Your task to perform on an android device: toggle improve location accuracy Image 0: 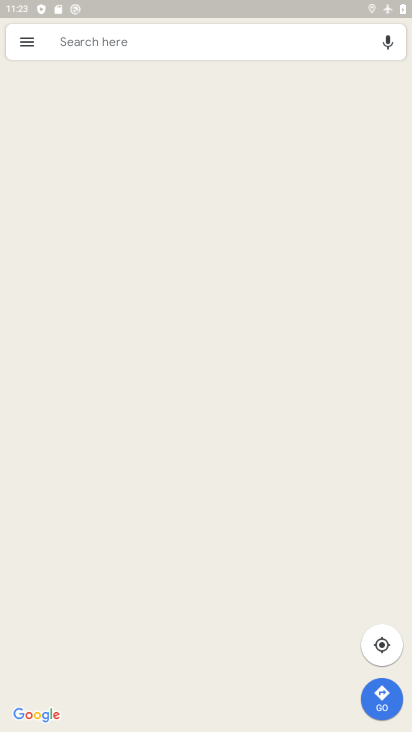
Step 0: press home button
Your task to perform on an android device: toggle improve location accuracy Image 1: 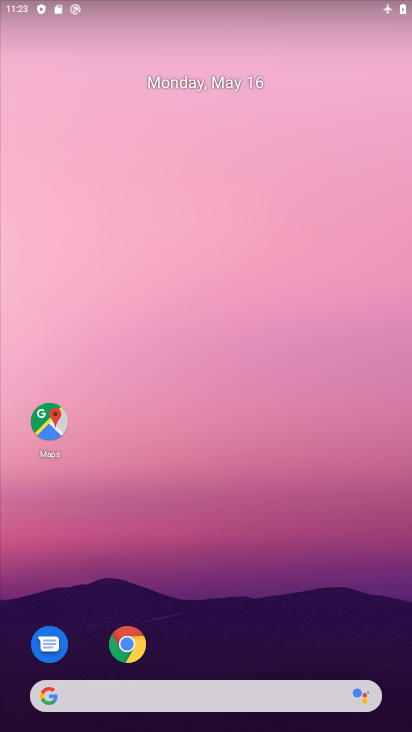
Step 1: drag from (253, 619) to (320, 228)
Your task to perform on an android device: toggle improve location accuracy Image 2: 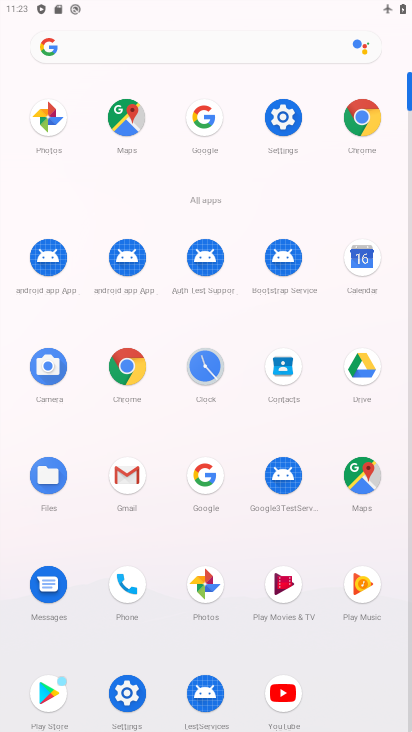
Step 2: click (282, 116)
Your task to perform on an android device: toggle improve location accuracy Image 3: 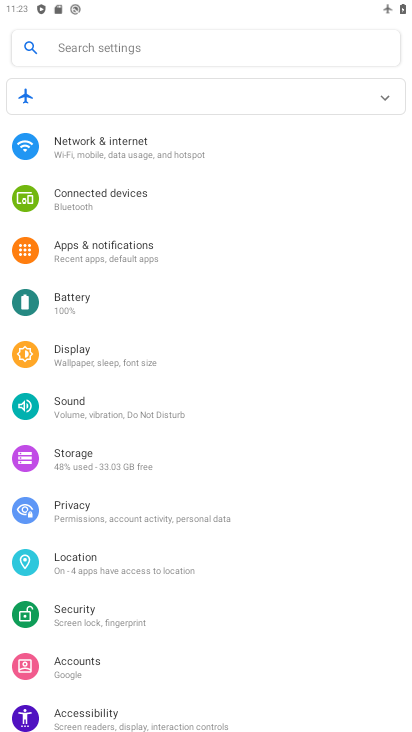
Step 3: click (94, 564)
Your task to perform on an android device: toggle improve location accuracy Image 4: 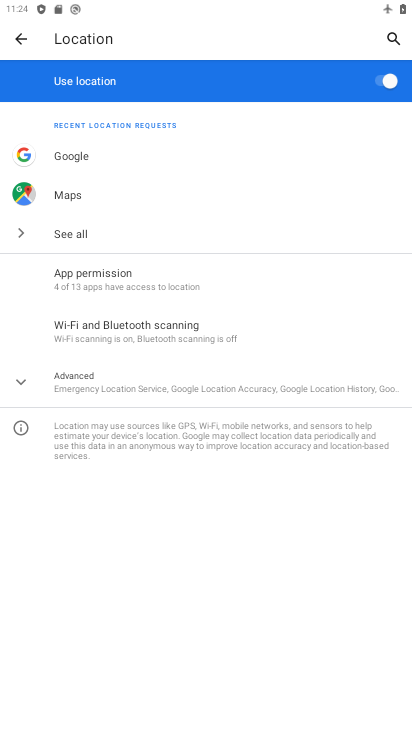
Step 4: click (142, 375)
Your task to perform on an android device: toggle improve location accuracy Image 5: 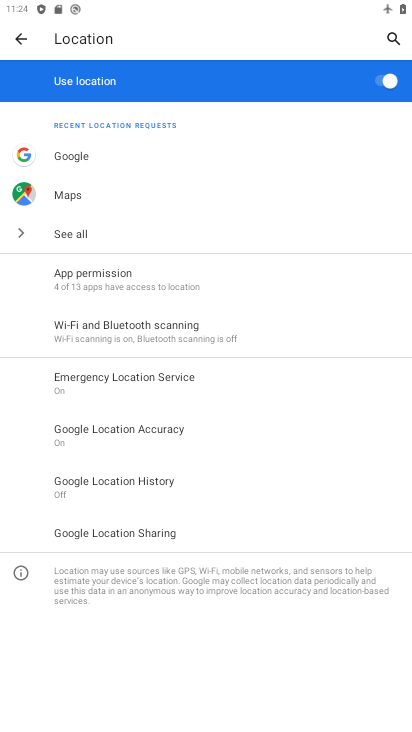
Step 5: click (135, 437)
Your task to perform on an android device: toggle improve location accuracy Image 6: 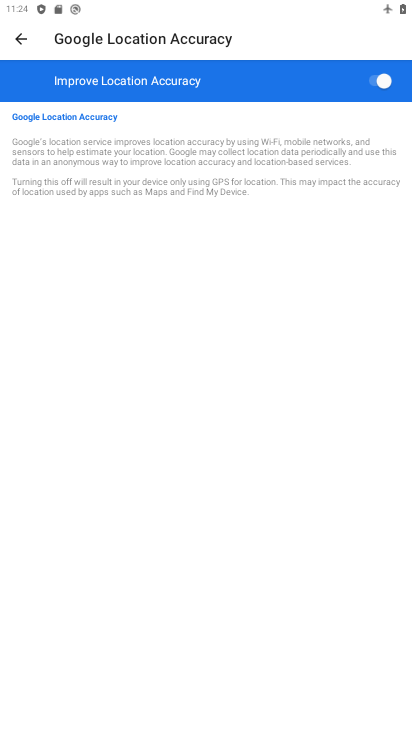
Step 6: click (357, 77)
Your task to perform on an android device: toggle improve location accuracy Image 7: 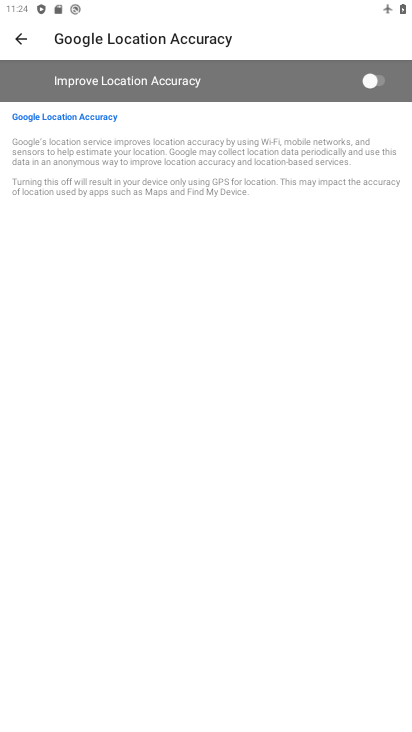
Step 7: task complete